Your task to perform on an android device: Go to wifi settings Image 0: 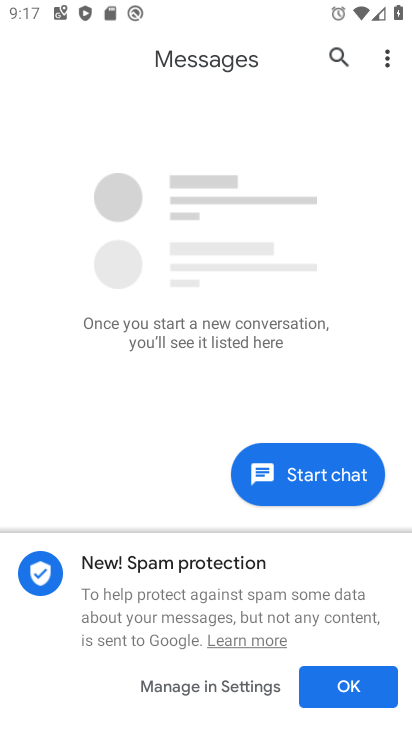
Step 0: press home button
Your task to perform on an android device: Go to wifi settings Image 1: 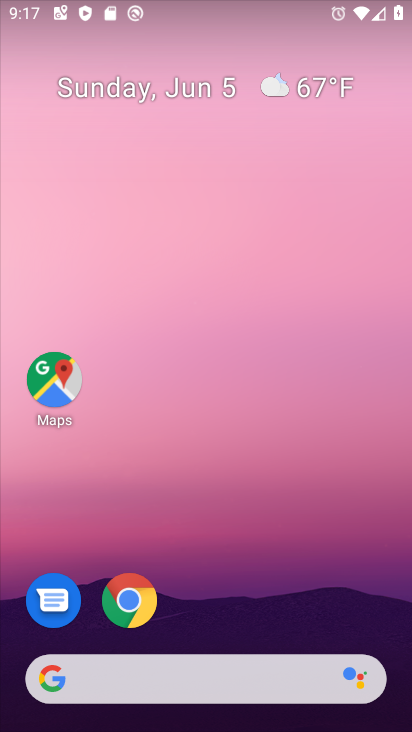
Step 1: drag from (386, 632) to (333, 139)
Your task to perform on an android device: Go to wifi settings Image 2: 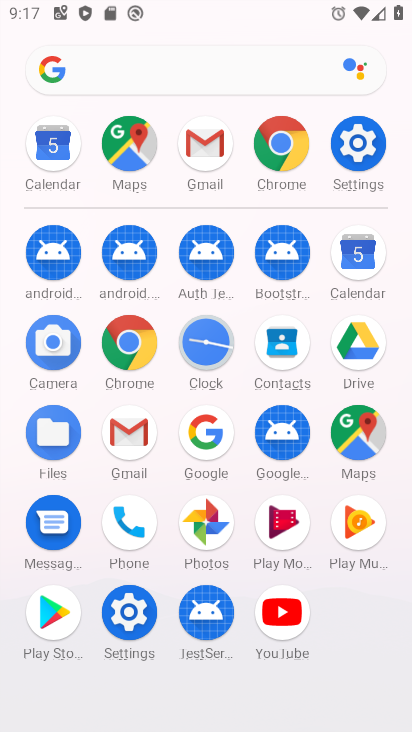
Step 2: click (129, 617)
Your task to perform on an android device: Go to wifi settings Image 3: 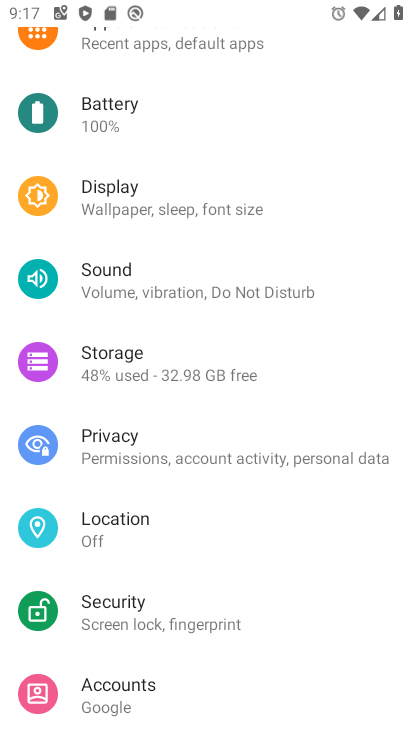
Step 3: drag from (113, 119) to (234, 678)
Your task to perform on an android device: Go to wifi settings Image 4: 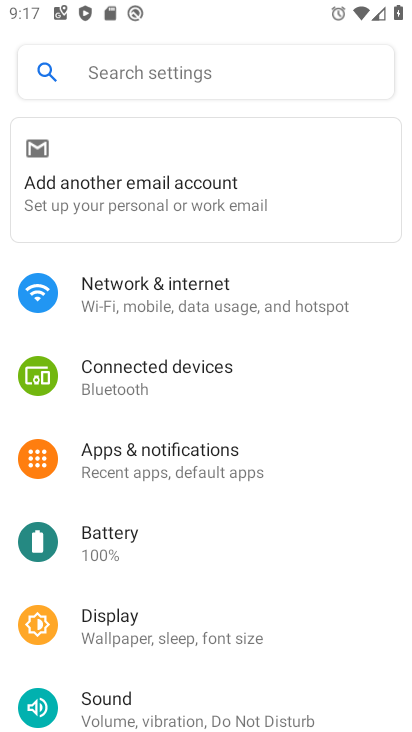
Step 4: click (133, 293)
Your task to perform on an android device: Go to wifi settings Image 5: 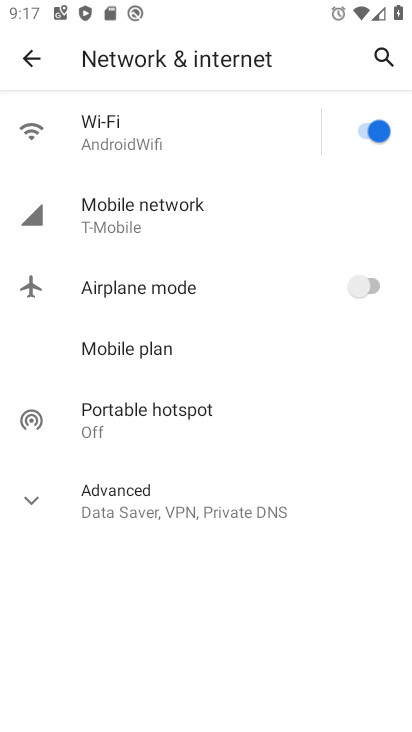
Step 5: click (112, 143)
Your task to perform on an android device: Go to wifi settings Image 6: 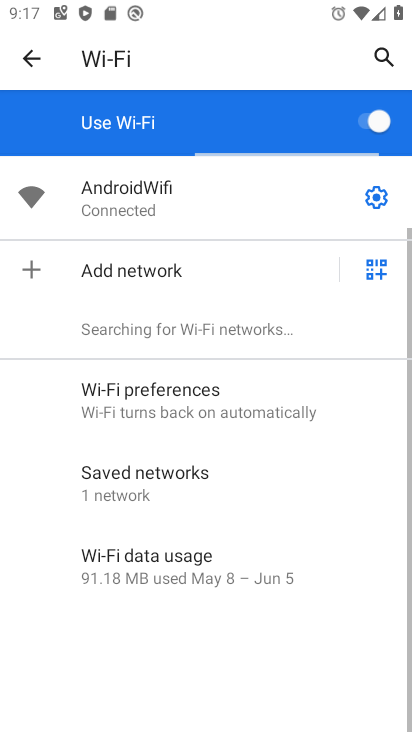
Step 6: task complete